Your task to perform on an android device: turn on the 12-hour format for clock Image 0: 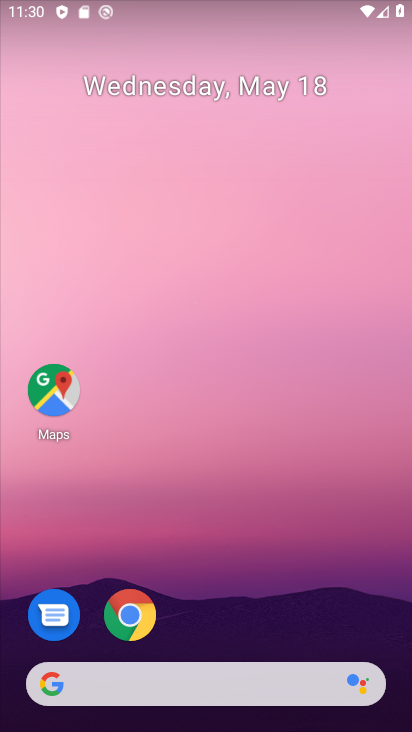
Step 0: click (126, 620)
Your task to perform on an android device: turn on the 12-hour format for clock Image 1: 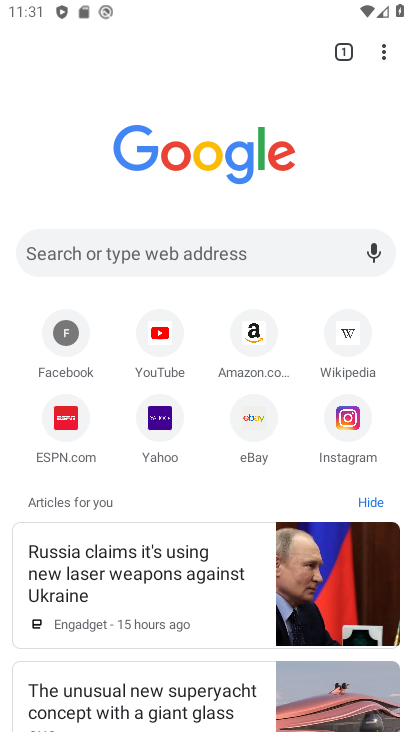
Step 1: press home button
Your task to perform on an android device: turn on the 12-hour format for clock Image 2: 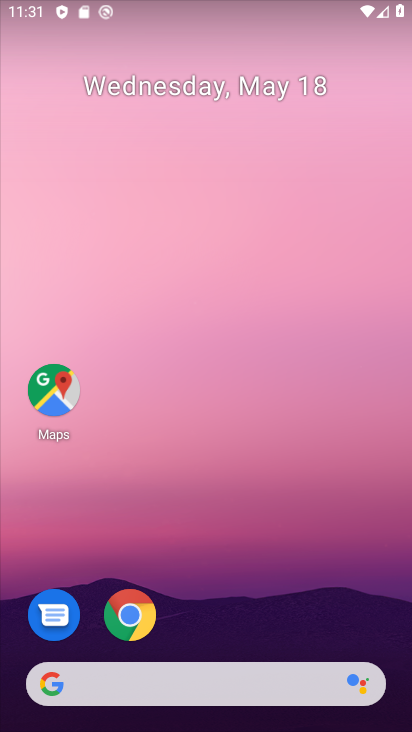
Step 2: drag from (82, 442) to (239, 136)
Your task to perform on an android device: turn on the 12-hour format for clock Image 3: 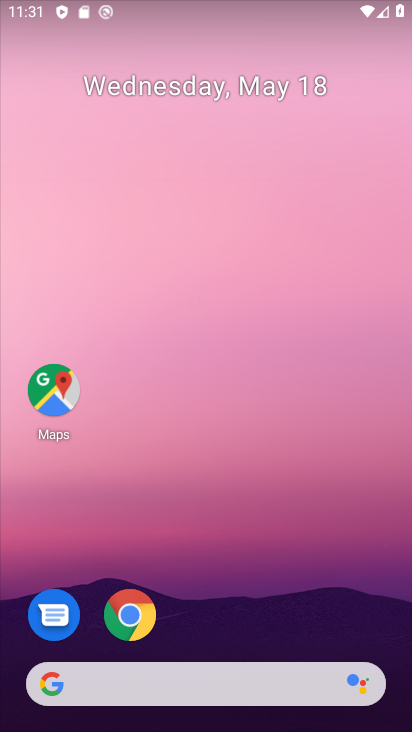
Step 3: drag from (99, 452) to (258, 170)
Your task to perform on an android device: turn on the 12-hour format for clock Image 4: 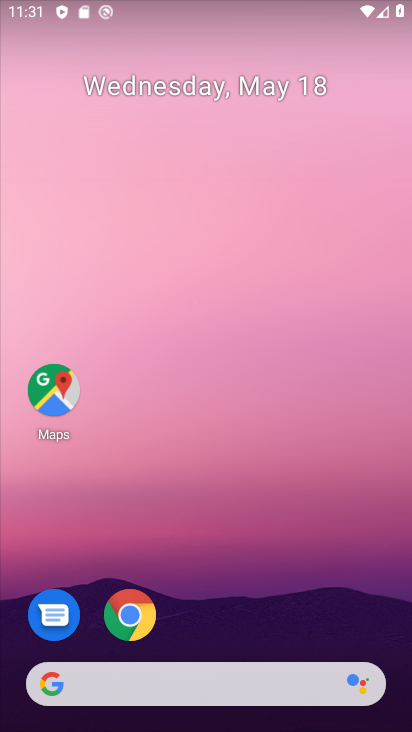
Step 4: drag from (41, 563) to (246, 171)
Your task to perform on an android device: turn on the 12-hour format for clock Image 5: 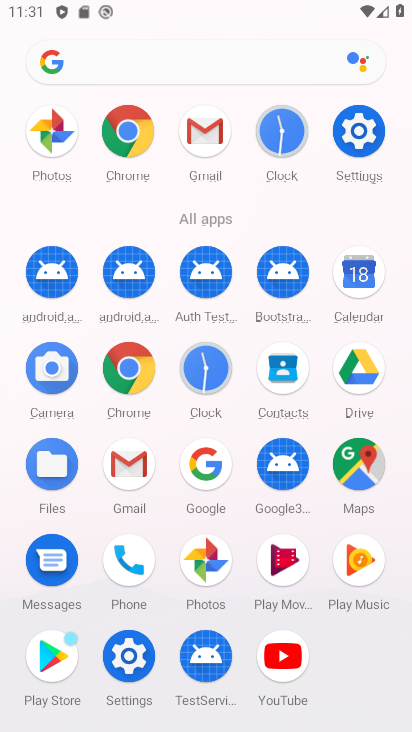
Step 5: click (277, 146)
Your task to perform on an android device: turn on the 12-hour format for clock Image 6: 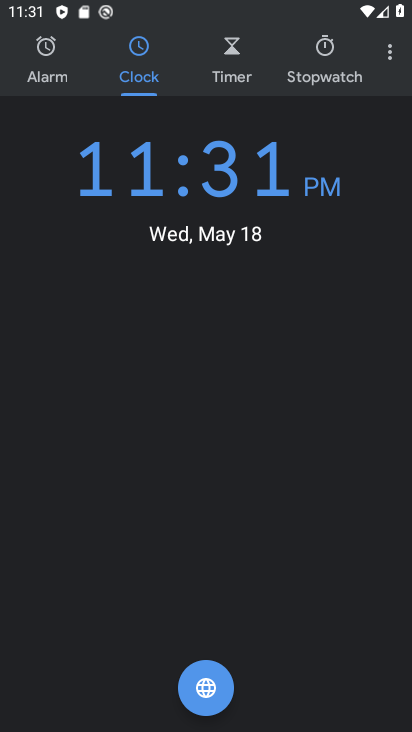
Step 6: click (389, 55)
Your task to perform on an android device: turn on the 12-hour format for clock Image 7: 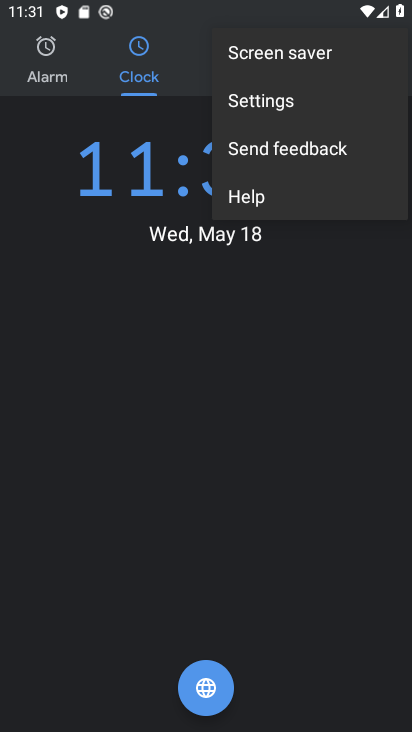
Step 7: click (269, 112)
Your task to perform on an android device: turn on the 12-hour format for clock Image 8: 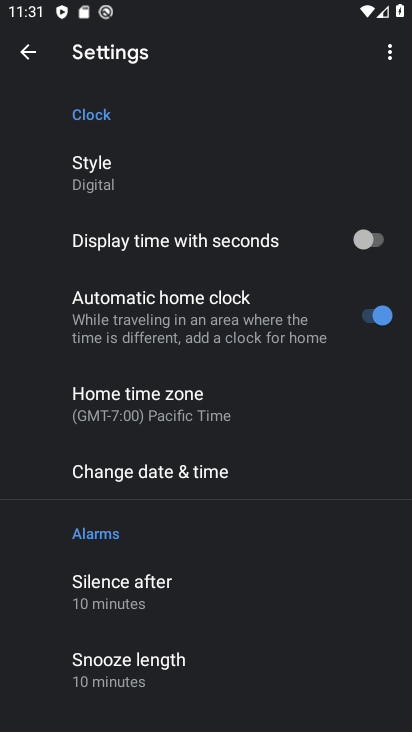
Step 8: click (134, 481)
Your task to perform on an android device: turn on the 12-hour format for clock Image 9: 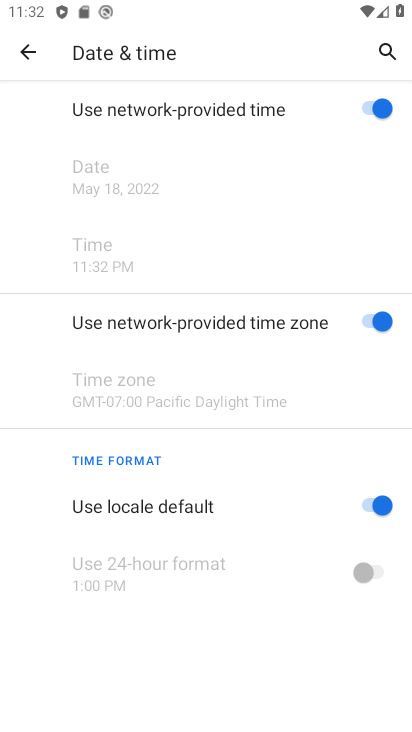
Step 9: task complete